Your task to perform on an android device: Show me recent news Image 0: 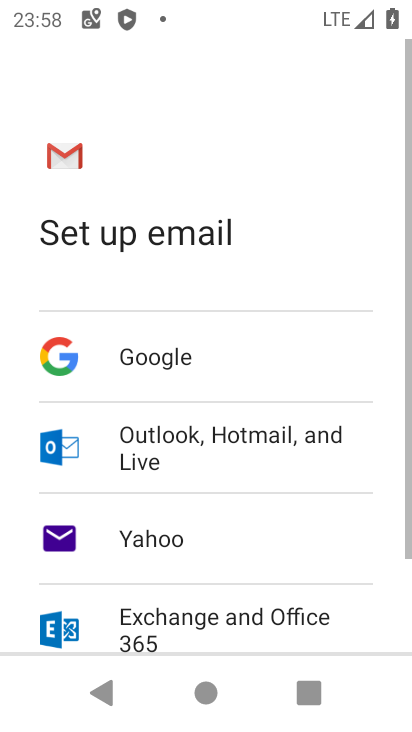
Step 0: press home button
Your task to perform on an android device: Show me recent news Image 1: 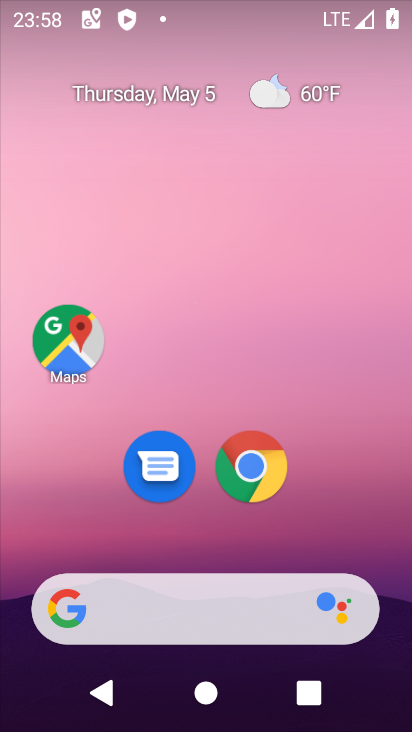
Step 1: drag from (197, 574) to (179, 154)
Your task to perform on an android device: Show me recent news Image 2: 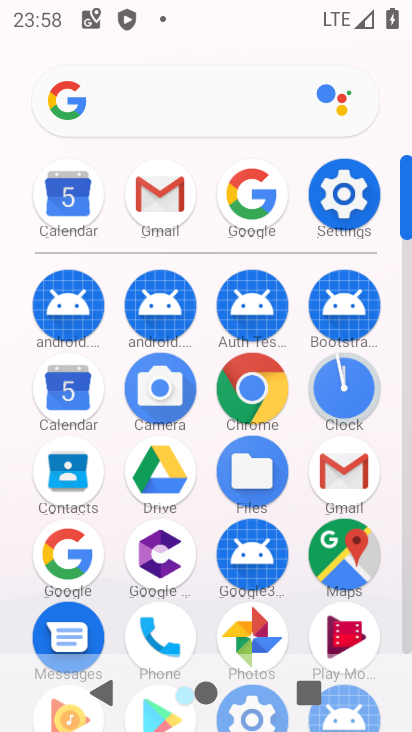
Step 2: click (257, 205)
Your task to perform on an android device: Show me recent news Image 3: 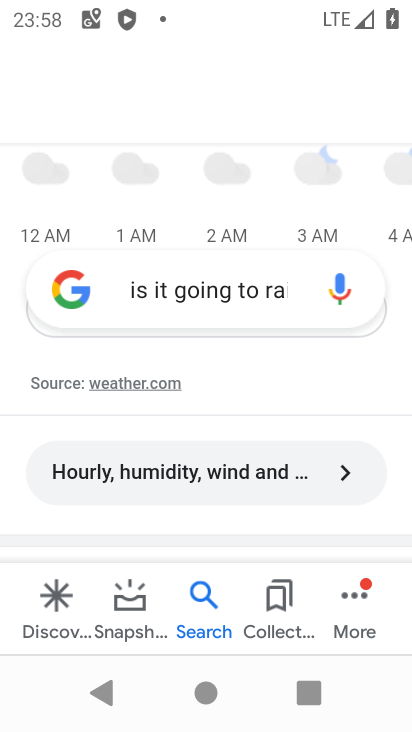
Step 3: click (291, 294)
Your task to perform on an android device: Show me recent news Image 4: 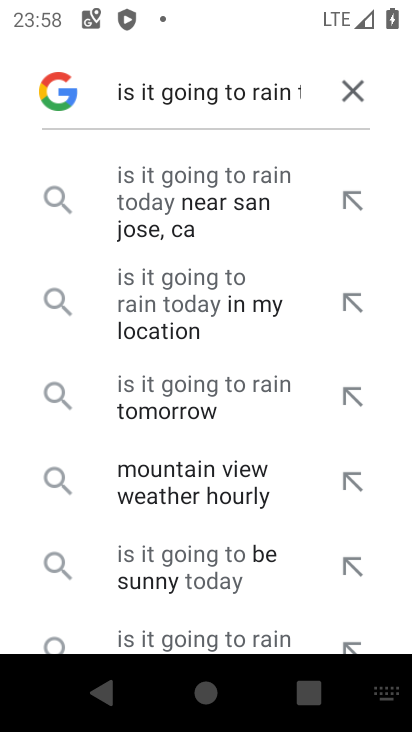
Step 4: click (360, 92)
Your task to perform on an android device: Show me recent news Image 5: 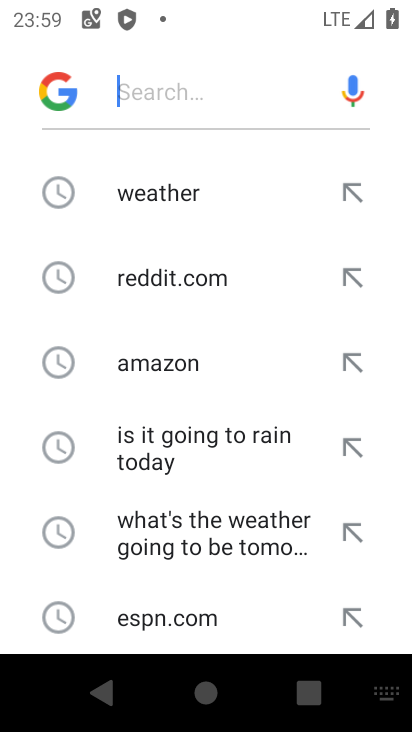
Step 5: drag from (200, 606) to (193, 246)
Your task to perform on an android device: Show me recent news Image 6: 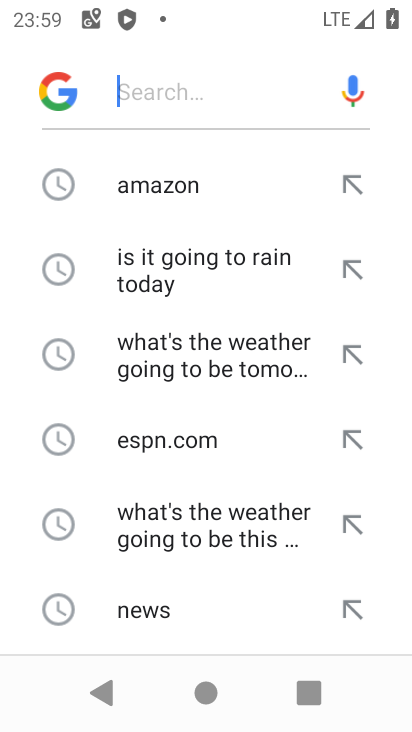
Step 6: drag from (200, 606) to (187, 279)
Your task to perform on an android device: Show me recent news Image 7: 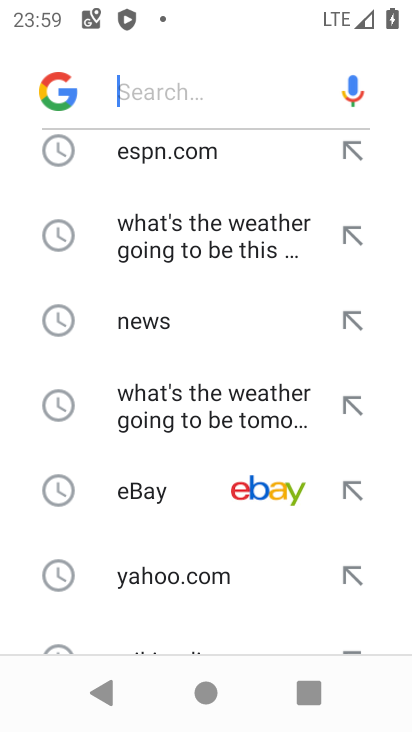
Step 7: drag from (159, 600) to (168, 257)
Your task to perform on an android device: Show me recent news Image 8: 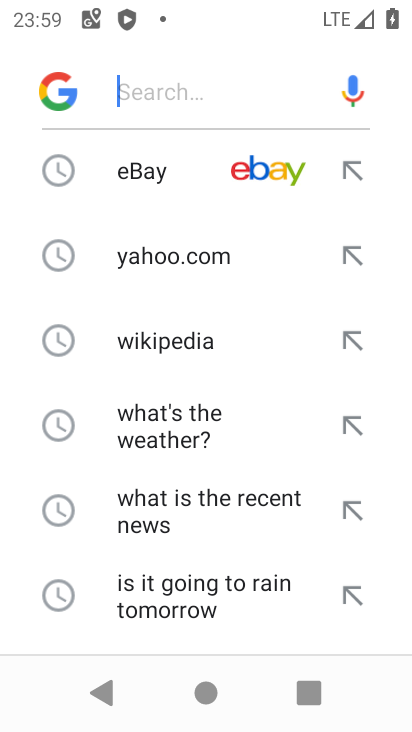
Step 8: drag from (190, 581) to (182, 176)
Your task to perform on an android device: Show me recent news Image 9: 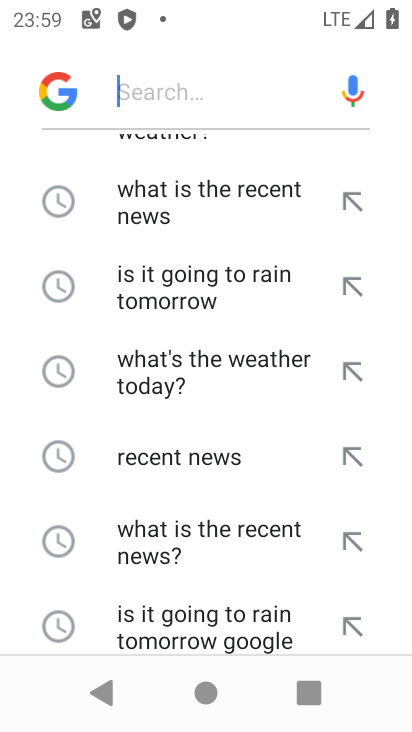
Step 9: click (174, 430)
Your task to perform on an android device: Show me recent news Image 10: 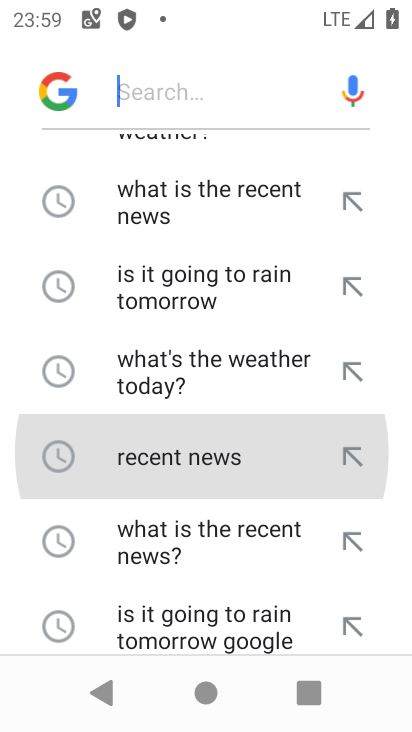
Step 10: click (176, 466)
Your task to perform on an android device: Show me recent news Image 11: 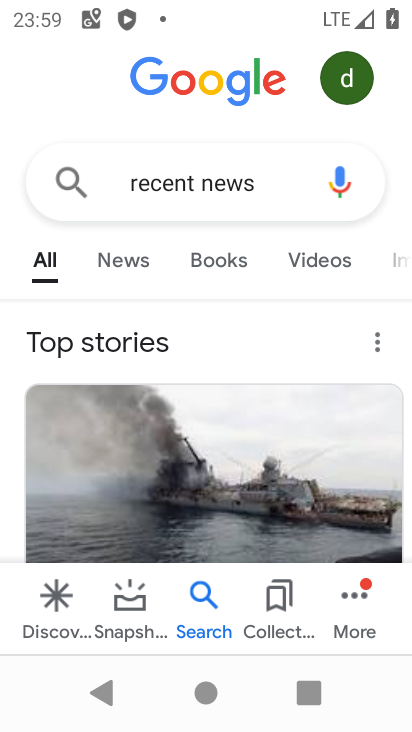
Step 11: task complete